Your task to perform on an android device: Turn off the flashlight Image 0: 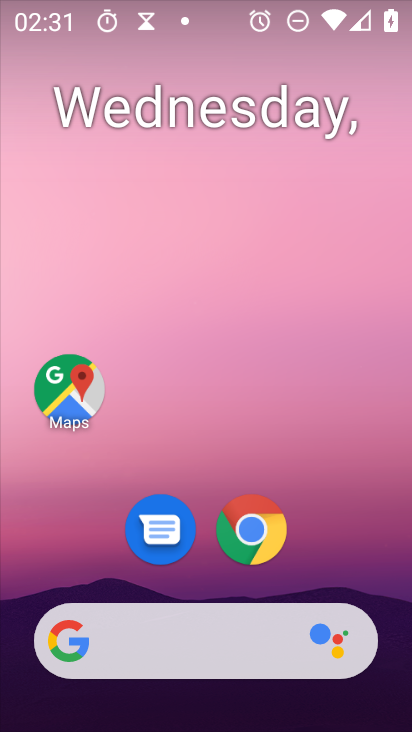
Step 0: drag from (306, 683) to (379, 145)
Your task to perform on an android device: Turn off the flashlight Image 1: 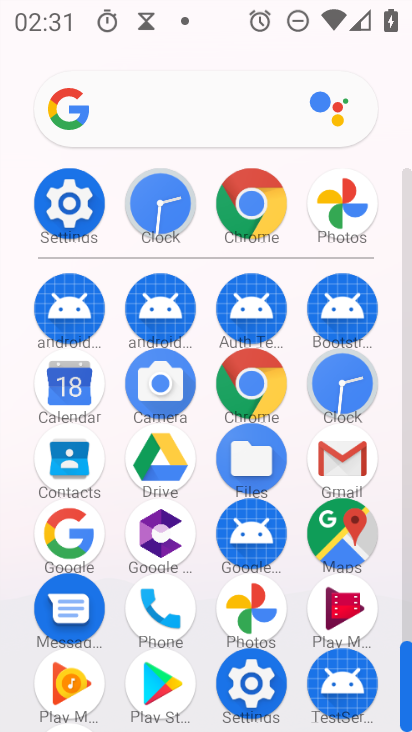
Step 1: click (60, 210)
Your task to perform on an android device: Turn off the flashlight Image 2: 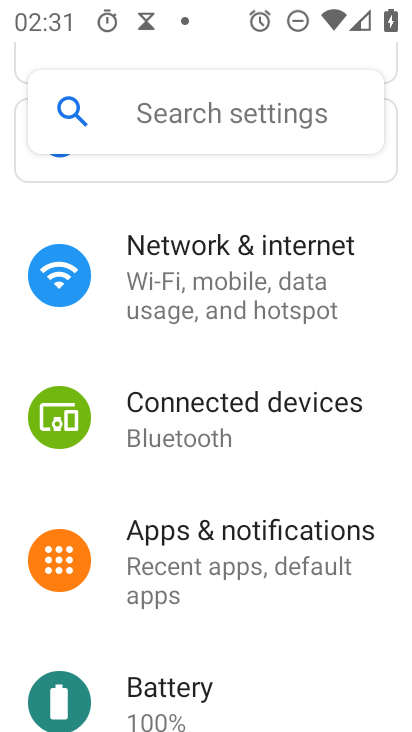
Step 2: task complete